Your task to perform on an android device: change the clock display to analog Image 0: 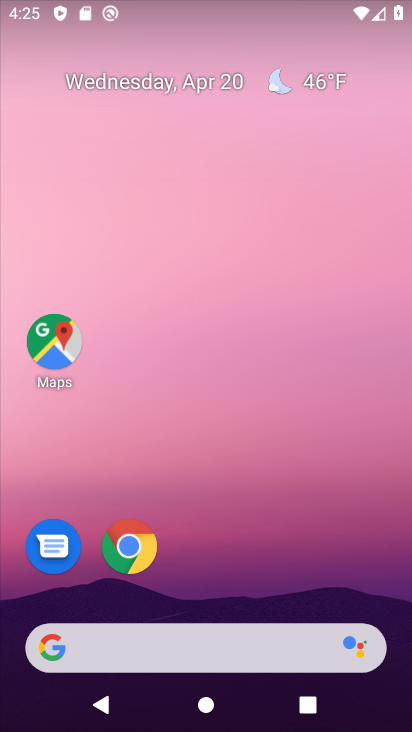
Step 0: drag from (207, 576) to (209, 212)
Your task to perform on an android device: change the clock display to analog Image 1: 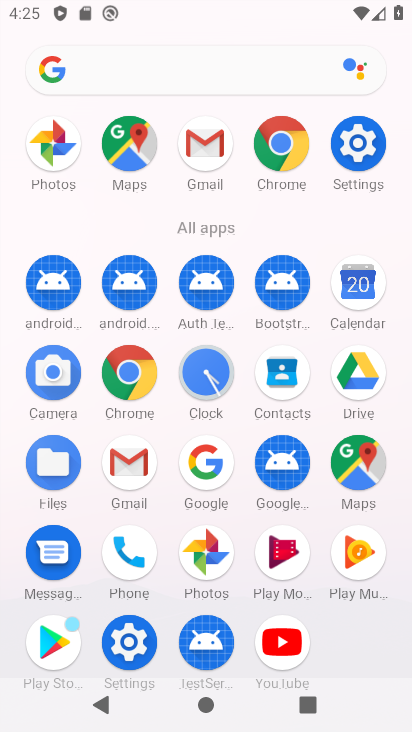
Step 1: click (213, 387)
Your task to perform on an android device: change the clock display to analog Image 2: 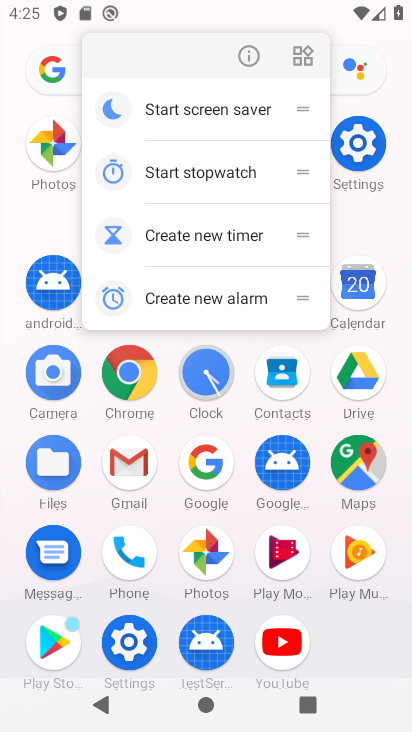
Step 2: click (212, 382)
Your task to perform on an android device: change the clock display to analog Image 3: 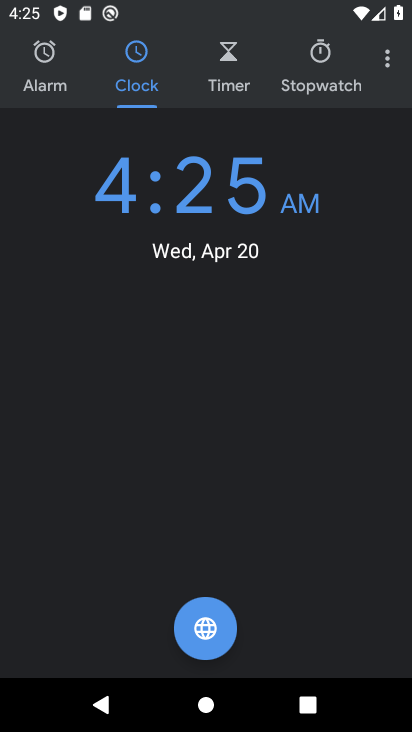
Step 3: click (384, 66)
Your task to perform on an android device: change the clock display to analog Image 4: 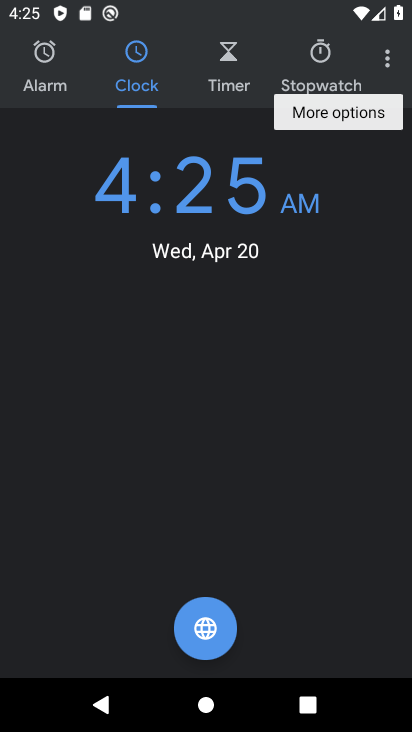
Step 4: click (393, 65)
Your task to perform on an android device: change the clock display to analog Image 5: 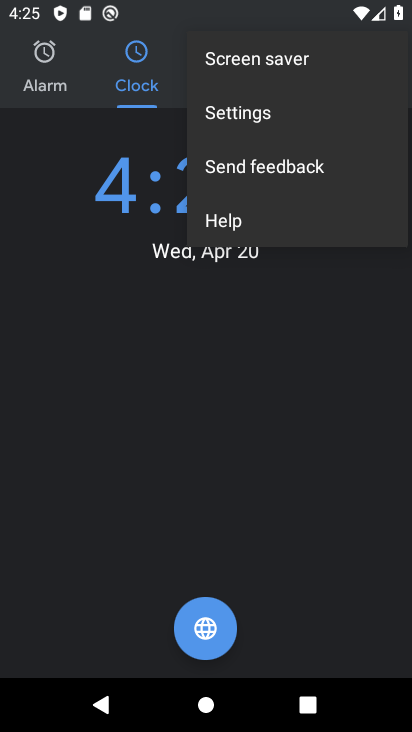
Step 5: click (273, 120)
Your task to perform on an android device: change the clock display to analog Image 6: 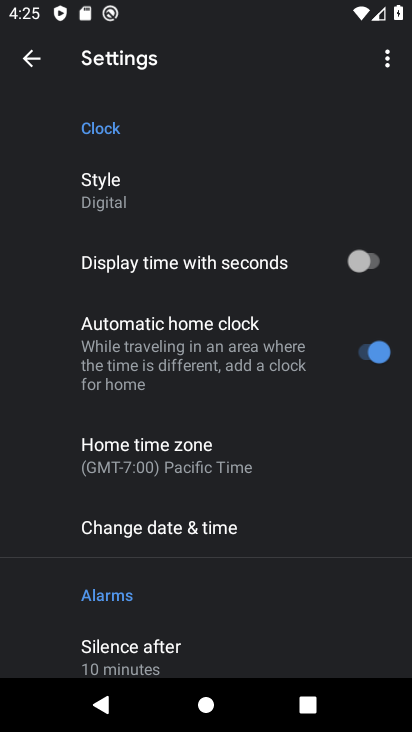
Step 6: click (139, 194)
Your task to perform on an android device: change the clock display to analog Image 7: 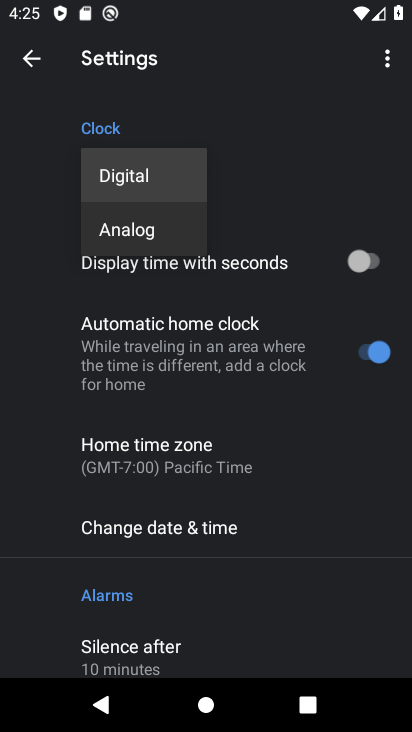
Step 7: click (139, 228)
Your task to perform on an android device: change the clock display to analog Image 8: 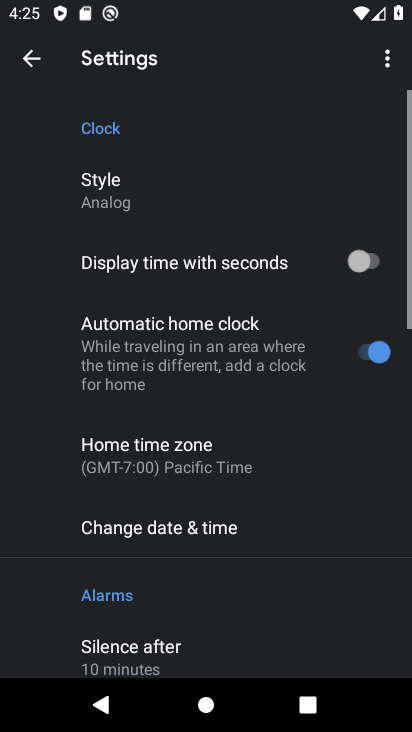
Step 8: task complete